Your task to perform on an android device: see sites visited before in the chrome app Image 0: 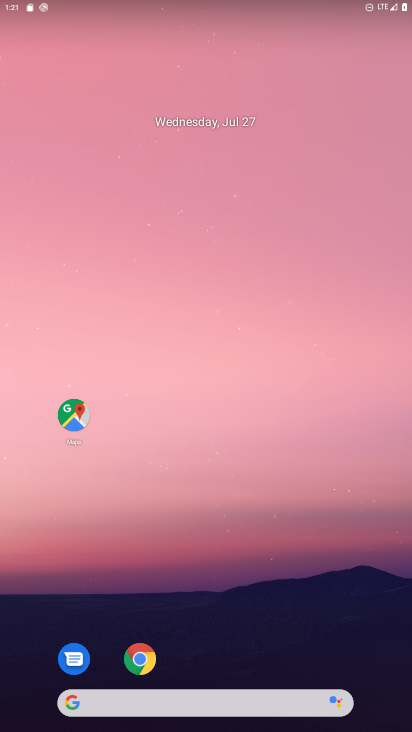
Step 0: drag from (217, 731) to (217, 232)
Your task to perform on an android device: see sites visited before in the chrome app Image 1: 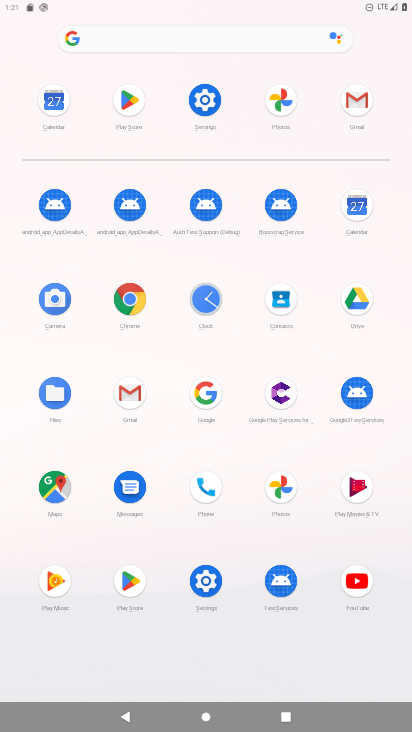
Step 1: click (287, 723)
Your task to perform on an android device: see sites visited before in the chrome app Image 2: 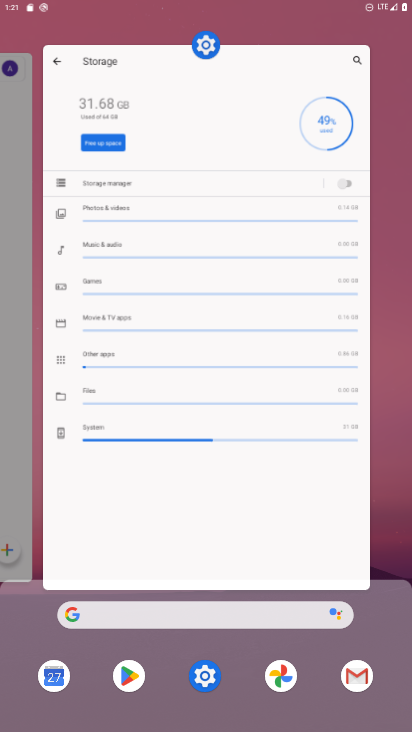
Step 2: drag from (78, 510) to (408, 702)
Your task to perform on an android device: see sites visited before in the chrome app Image 3: 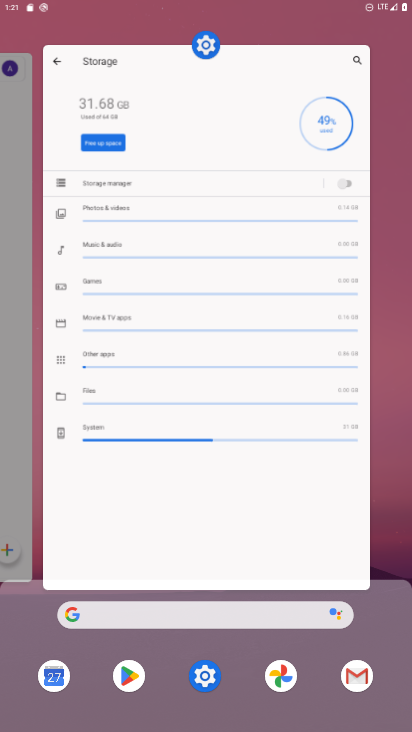
Step 3: press home button
Your task to perform on an android device: see sites visited before in the chrome app Image 4: 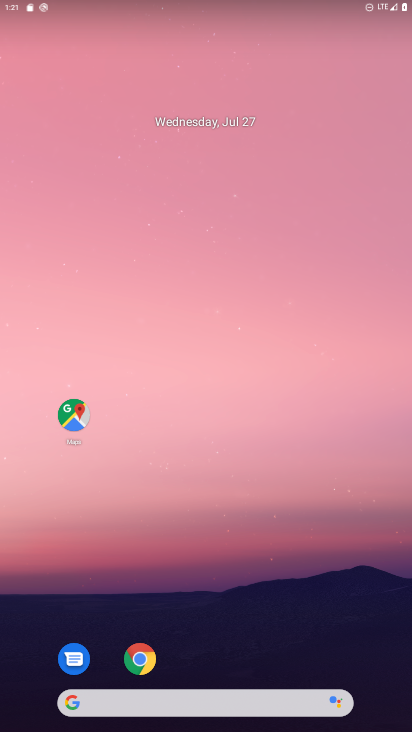
Step 4: click (132, 657)
Your task to perform on an android device: see sites visited before in the chrome app Image 5: 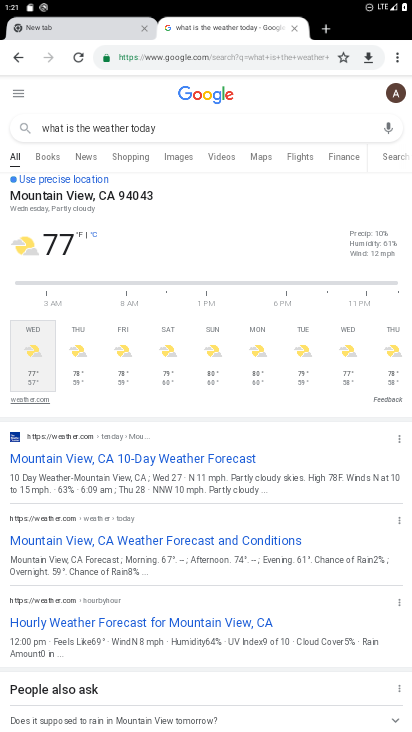
Step 5: click (397, 52)
Your task to perform on an android device: see sites visited before in the chrome app Image 6: 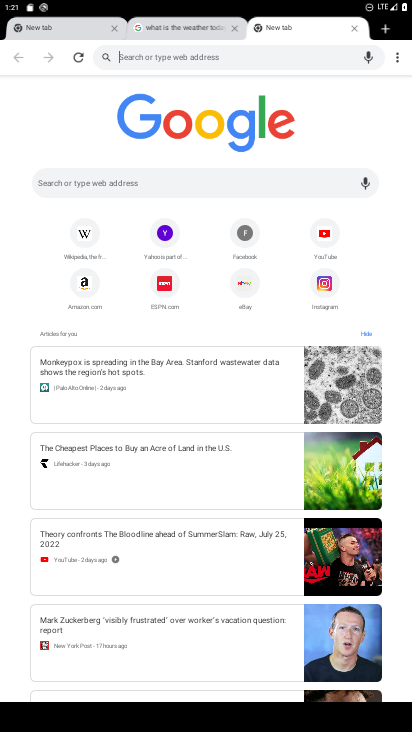
Step 6: click (365, 25)
Your task to perform on an android device: see sites visited before in the chrome app Image 7: 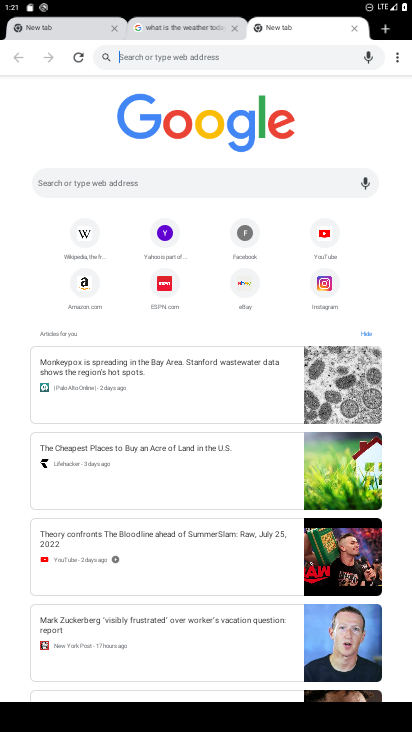
Step 7: click (397, 62)
Your task to perform on an android device: see sites visited before in the chrome app Image 8: 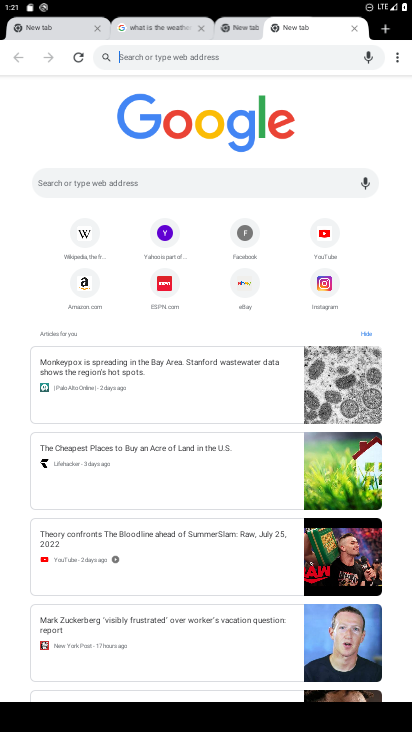
Step 8: click (397, 56)
Your task to perform on an android device: see sites visited before in the chrome app Image 9: 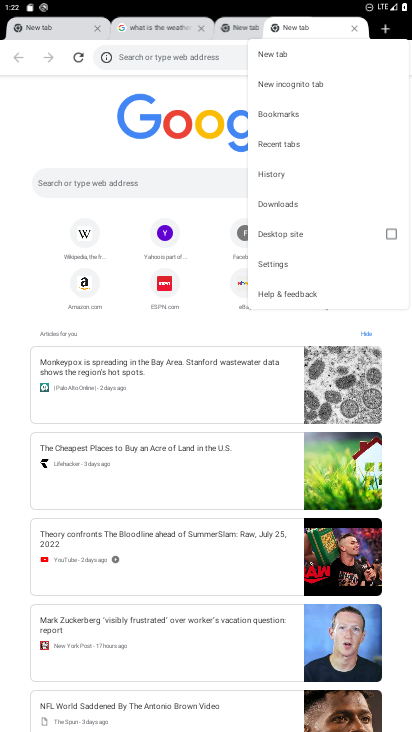
Step 9: click (294, 143)
Your task to perform on an android device: see sites visited before in the chrome app Image 10: 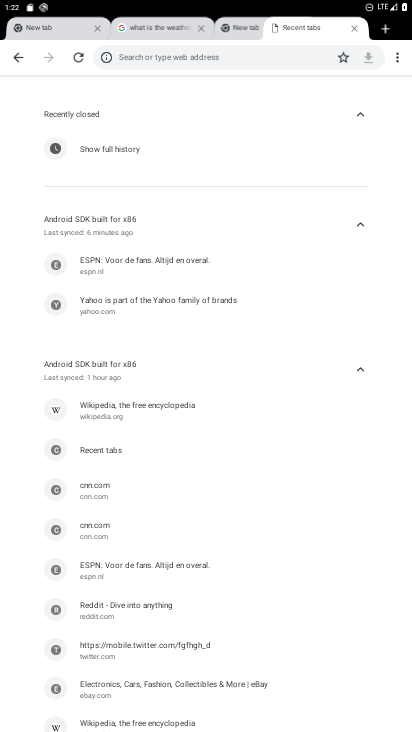
Step 10: task complete